Your task to perform on an android device: set the stopwatch Image 0: 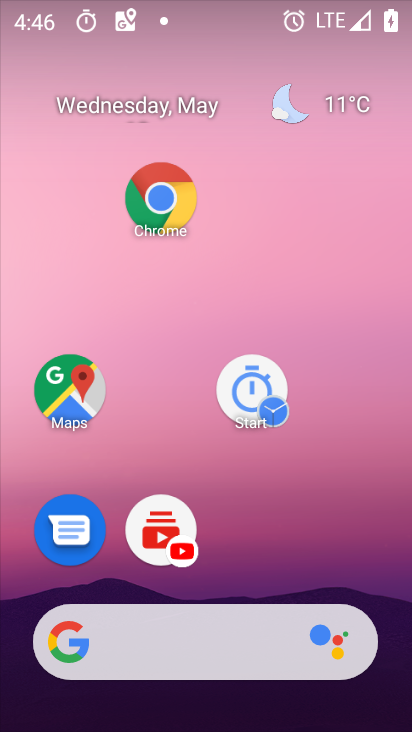
Step 0: drag from (290, 688) to (161, 120)
Your task to perform on an android device: set the stopwatch Image 1: 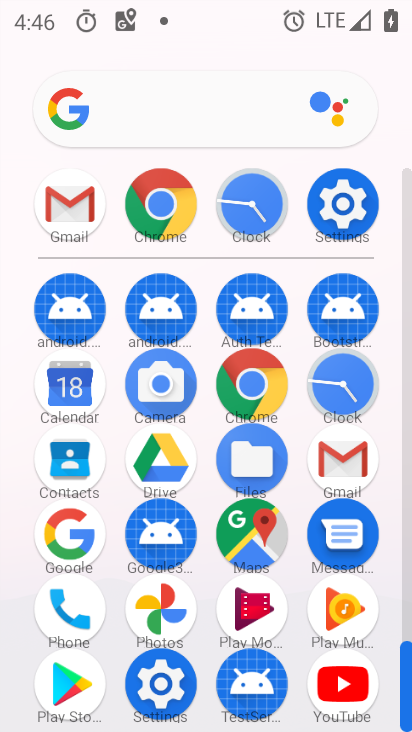
Step 1: click (346, 389)
Your task to perform on an android device: set the stopwatch Image 2: 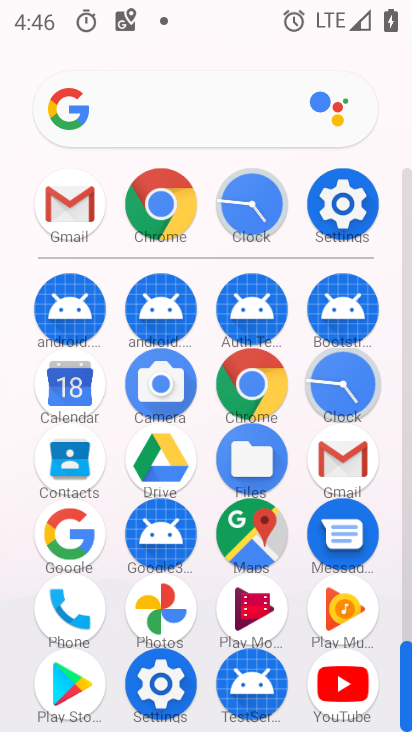
Step 2: click (346, 389)
Your task to perform on an android device: set the stopwatch Image 3: 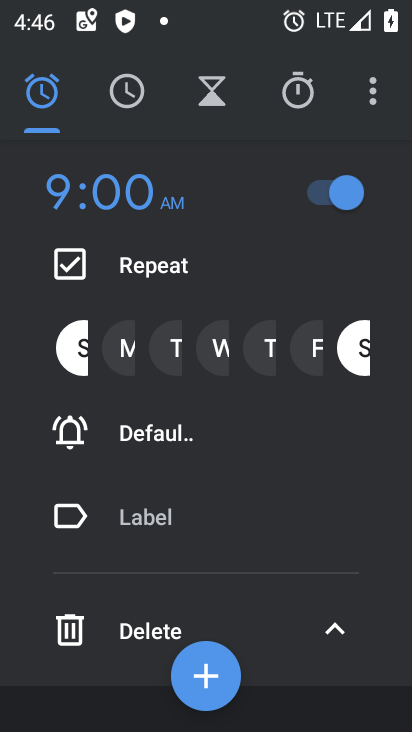
Step 3: click (294, 91)
Your task to perform on an android device: set the stopwatch Image 4: 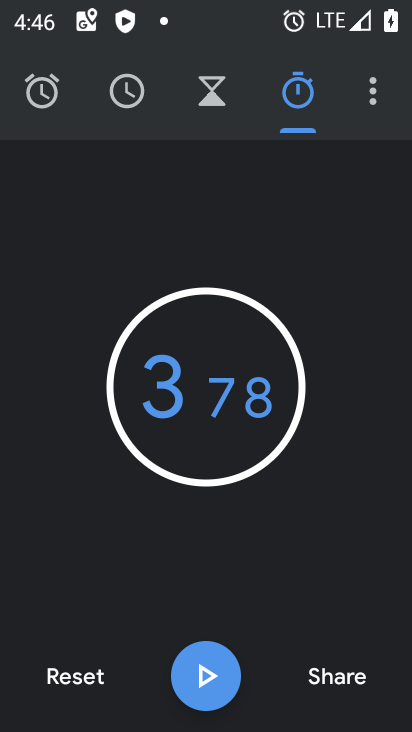
Step 4: click (195, 680)
Your task to perform on an android device: set the stopwatch Image 5: 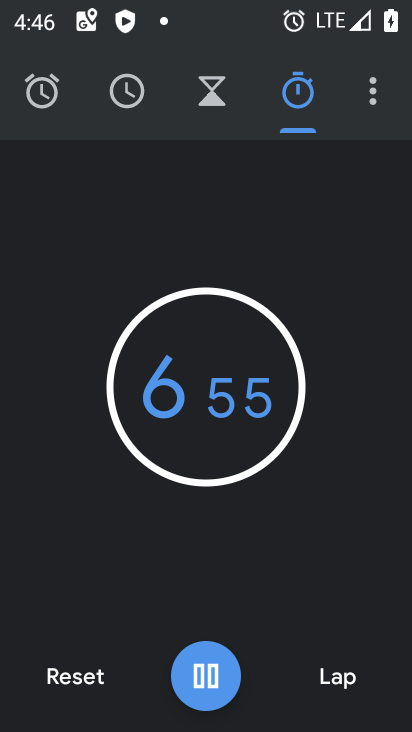
Step 5: click (202, 666)
Your task to perform on an android device: set the stopwatch Image 6: 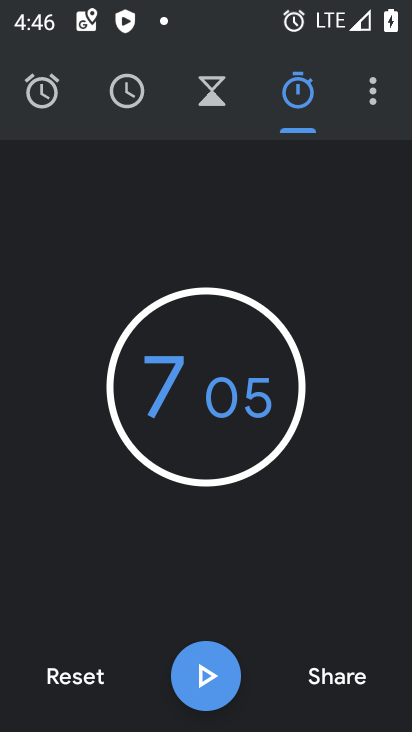
Step 6: task complete